Your task to perform on an android device: Open Wikipedia Image 0: 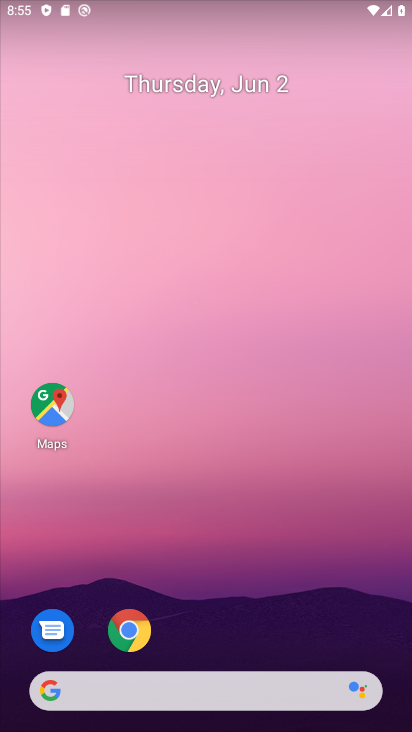
Step 0: click (130, 631)
Your task to perform on an android device: Open Wikipedia Image 1: 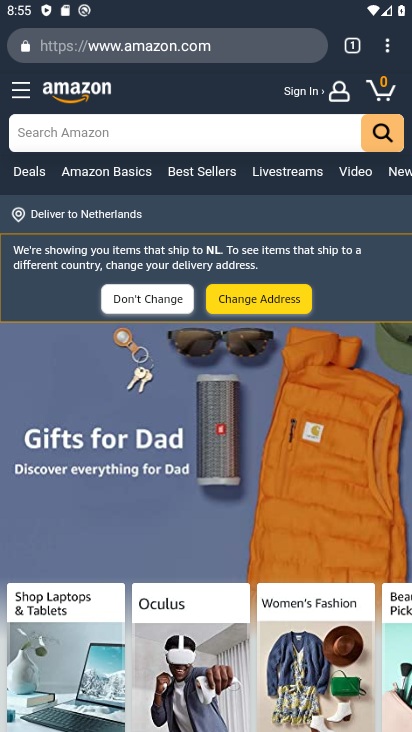
Step 1: press back button
Your task to perform on an android device: Open Wikipedia Image 2: 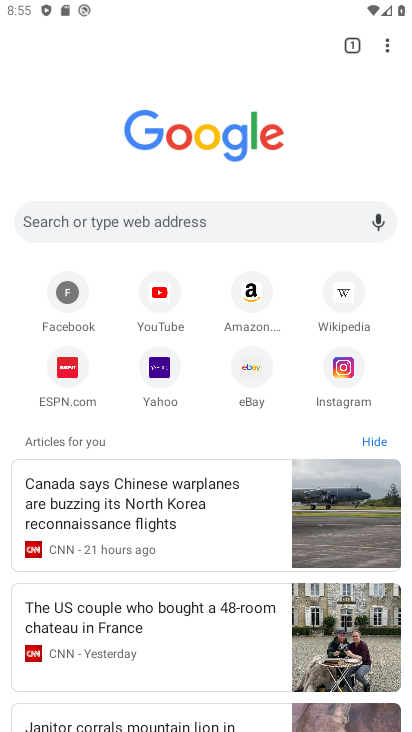
Step 2: click (339, 295)
Your task to perform on an android device: Open Wikipedia Image 3: 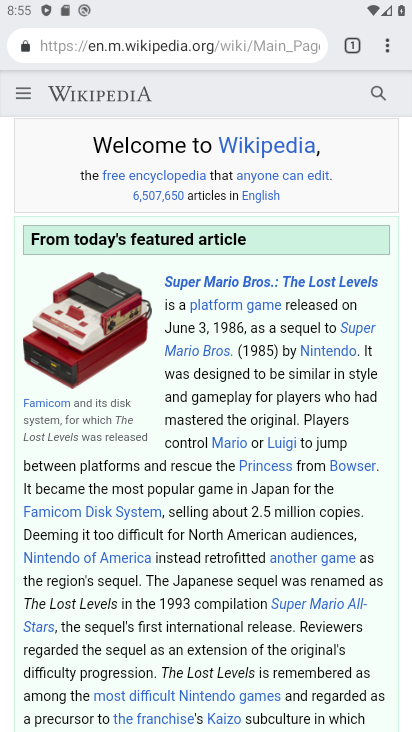
Step 3: task complete